Your task to perform on an android device: see sites visited before in the chrome app Image 0: 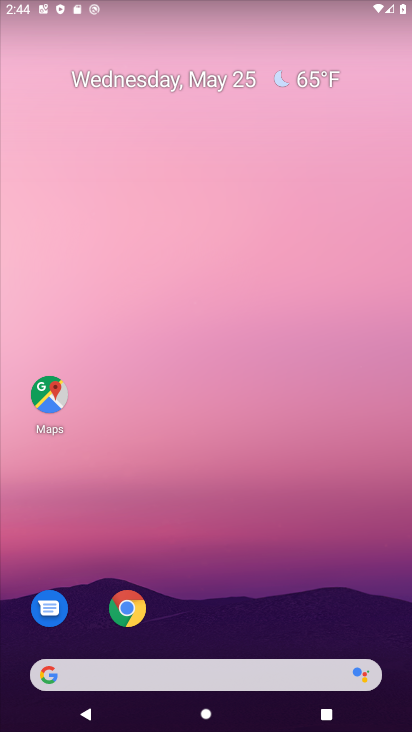
Step 0: click (133, 614)
Your task to perform on an android device: see sites visited before in the chrome app Image 1: 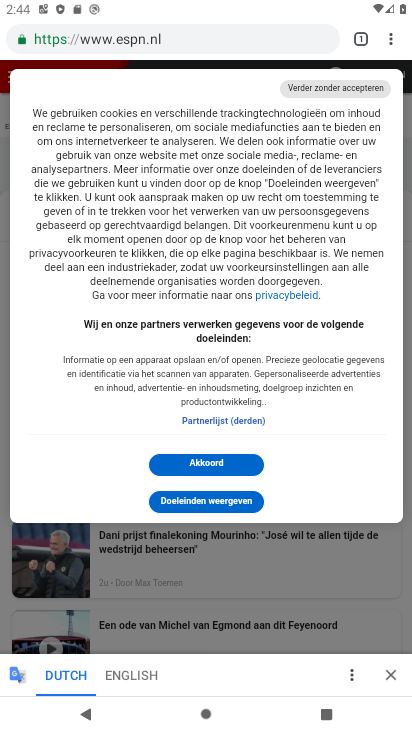
Step 1: click (389, 39)
Your task to perform on an android device: see sites visited before in the chrome app Image 2: 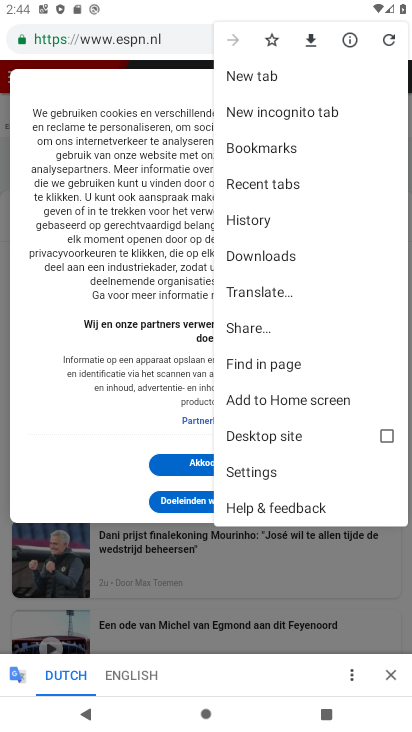
Step 2: click (258, 217)
Your task to perform on an android device: see sites visited before in the chrome app Image 3: 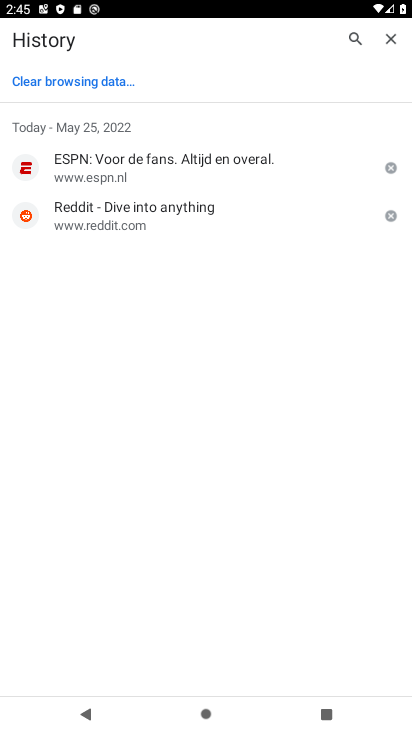
Step 3: task complete